Your task to perform on an android device: When is my next appointment? Image 0: 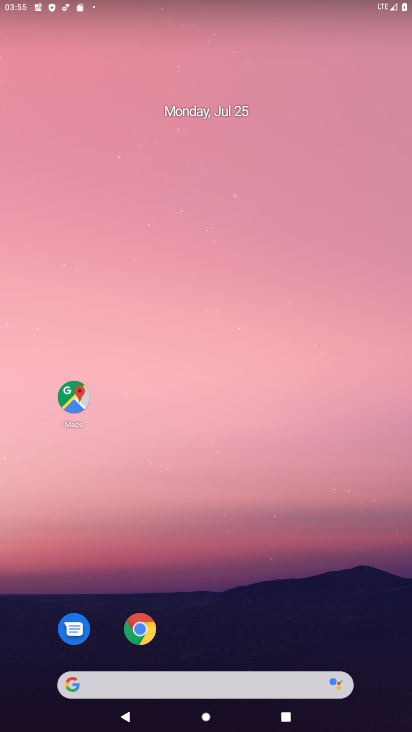
Step 0: drag from (268, 661) to (287, 92)
Your task to perform on an android device: When is my next appointment? Image 1: 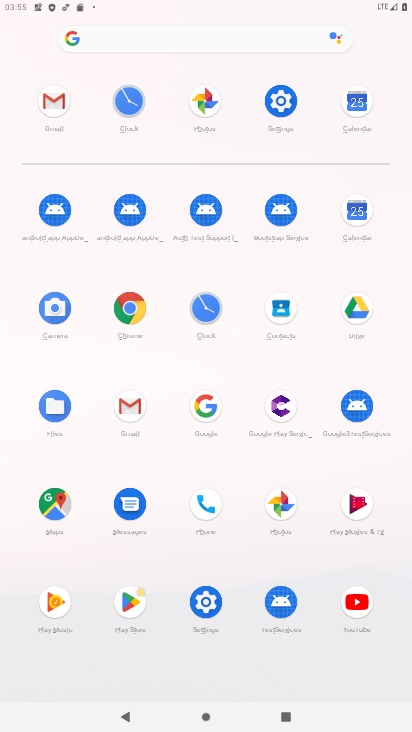
Step 1: click (365, 94)
Your task to perform on an android device: When is my next appointment? Image 2: 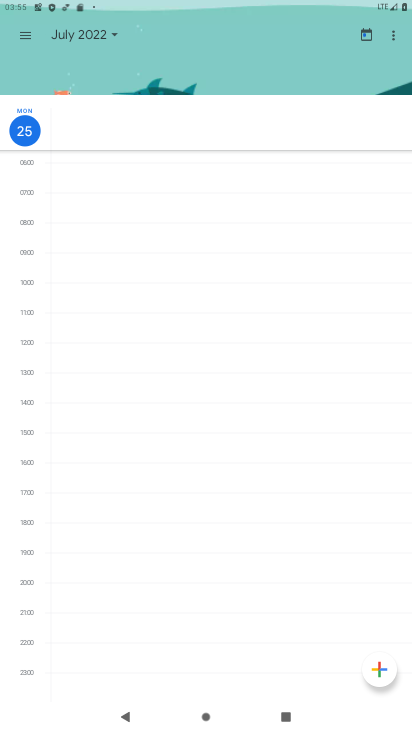
Step 2: click (25, 36)
Your task to perform on an android device: When is my next appointment? Image 3: 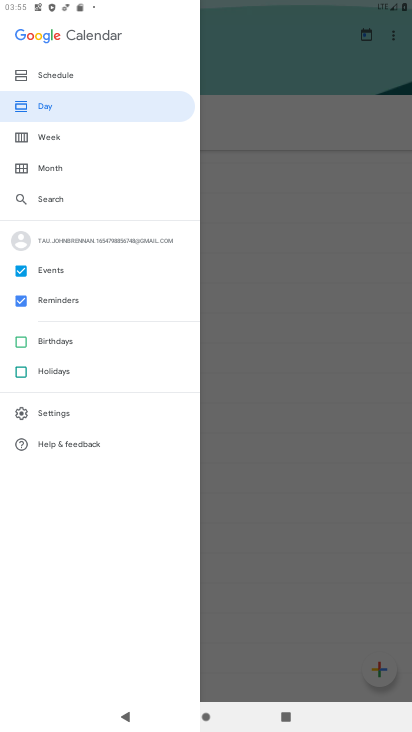
Step 3: click (30, 60)
Your task to perform on an android device: When is my next appointment? Image 4: 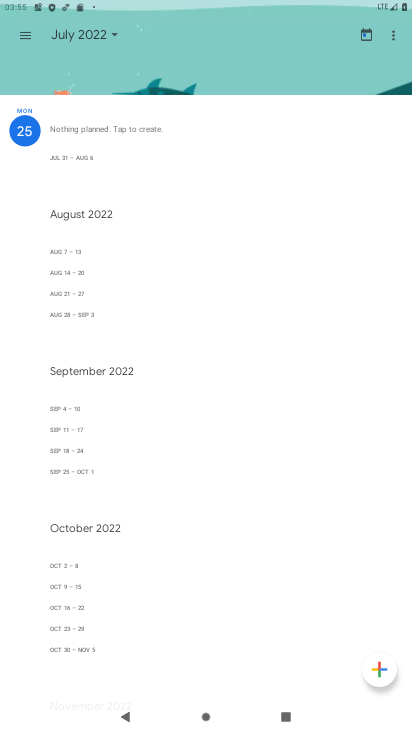
Step 4: click (393, 31)
Your task to perform on an android device: When is my next appointment? Image 5: 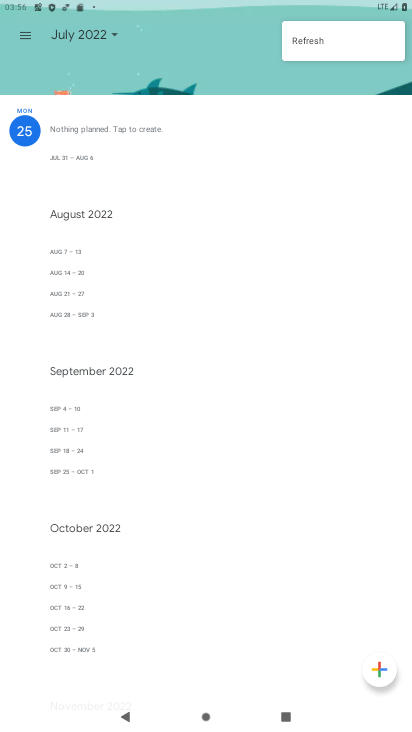
Step 5: click (320, 46)
Your task to perform on an android device: When is my next appointment? Image 6: 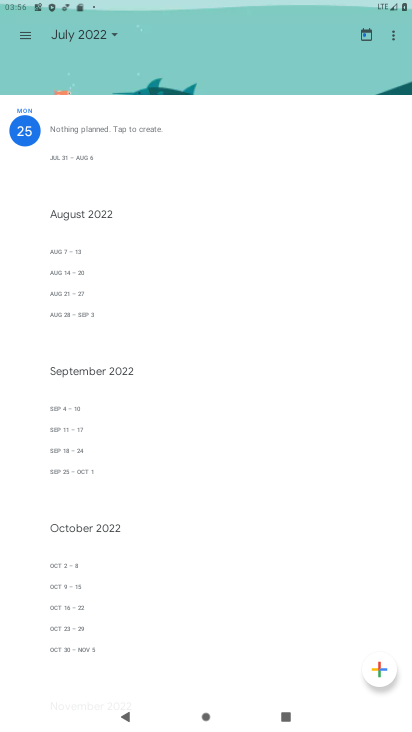
Step 6: drag from (202, 133) to (192, 204)
Your task to perform on an android device: When is my next appointment? Image 7: 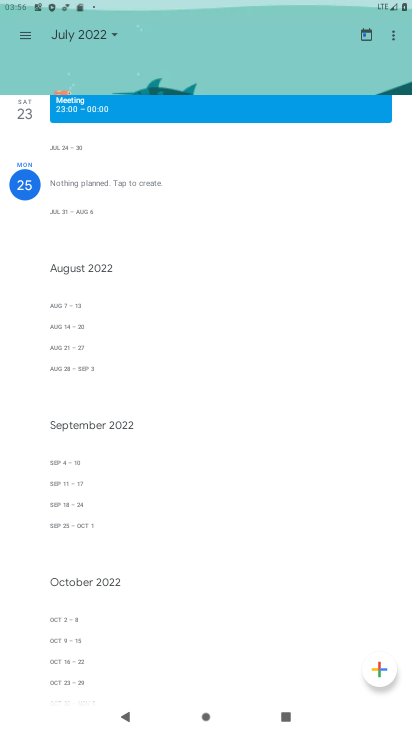
Step 7: drag from (192, 204) to (137, 485)
Your task to perform on an android device: When is my next appointment? Image 8: 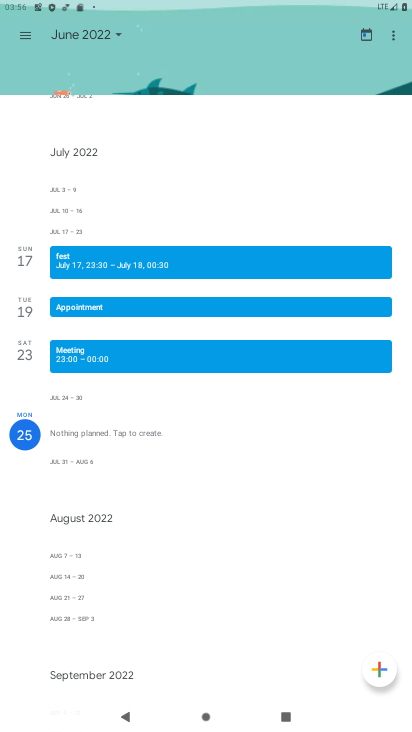
Step 8: drag from (141, 198) to (106, 562)
Your task to perform on an android device: When is my next appointment? Image 9: 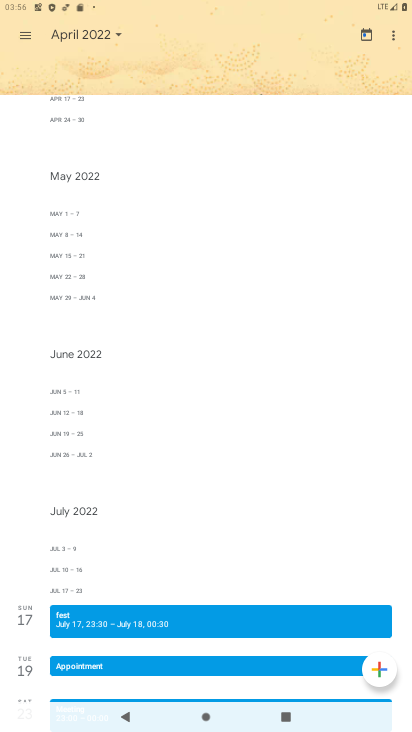
Step 9: drag from (132, 498) to (136, 262)
Your task to perform on an android device: When is my next appointment? Image 10: 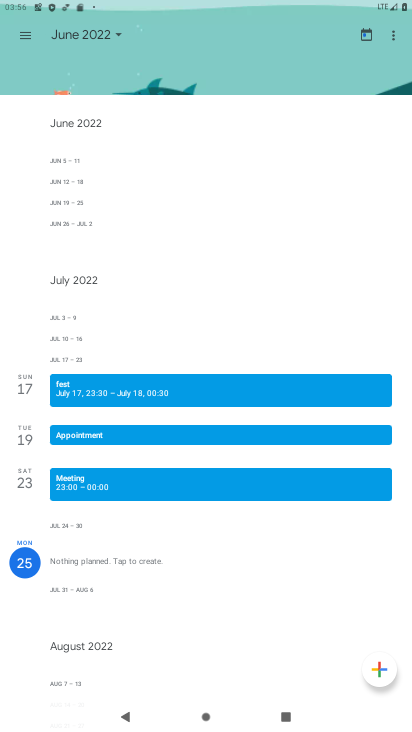
Step 10: click (90, 436)
Your task to perform on an android device: When is my next appointment? Image 11: 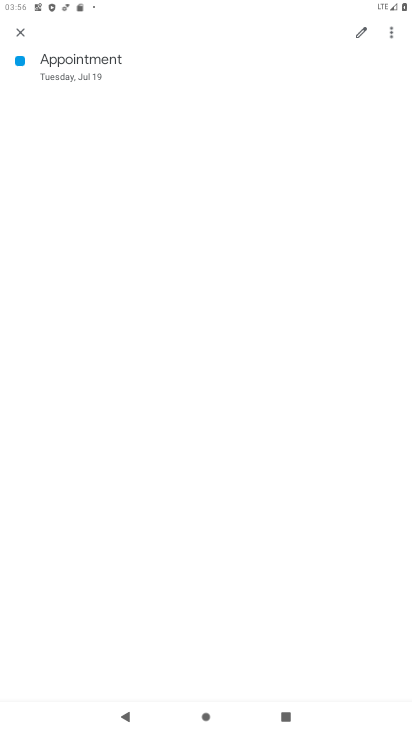
Step 11: click (23, 31)
Your task to perform on an android device: When is my next appointment? Image 12: 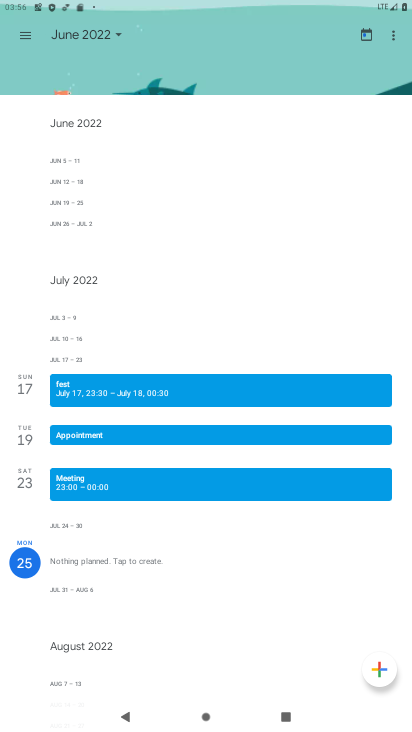
Step 12: task complete